Your task to perform on an android device: Open the web browser Image 0: 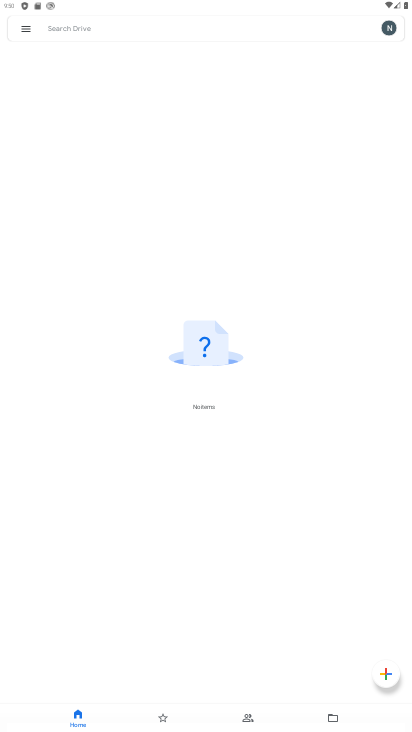
Step 0: press home button
Your task to perform on an android device: Open the web browser Image 1: 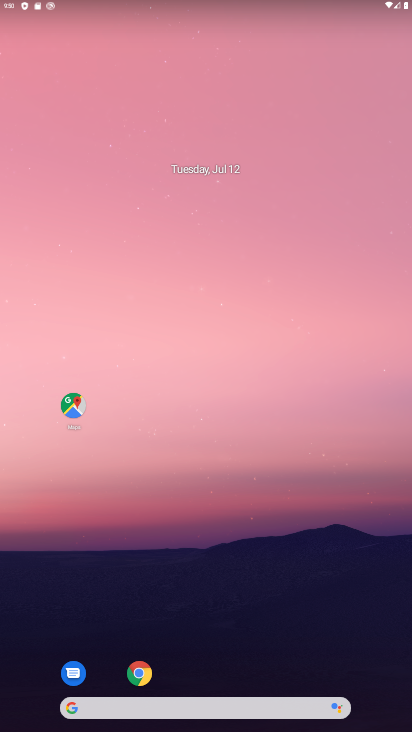
Step 1: drag from (292, 539) to (286, 74)
Your task to perform on an android device: Open the web browser Image 2: 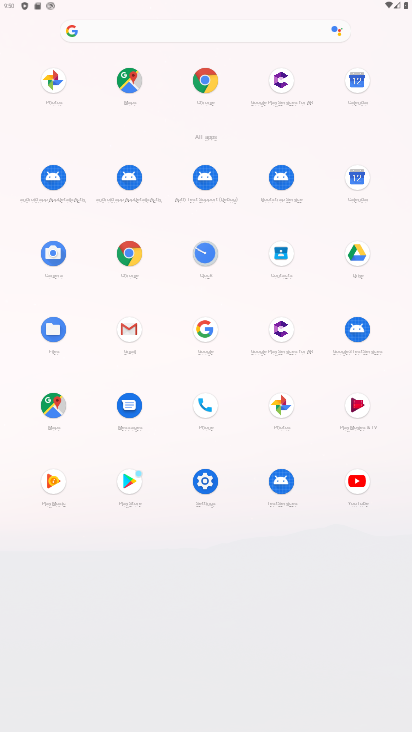
Step 2: click (208, 82)
Your task to perform on an android device: Open the web browser Image 3: 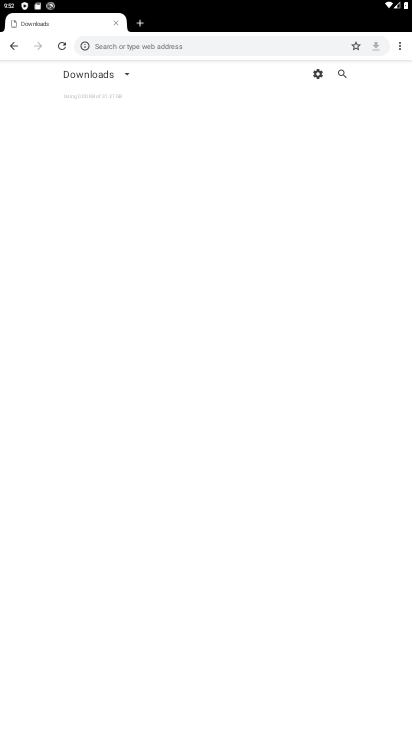
Step 3: task complete